Your task to perform on an android device: set the stopwatch Image 0: 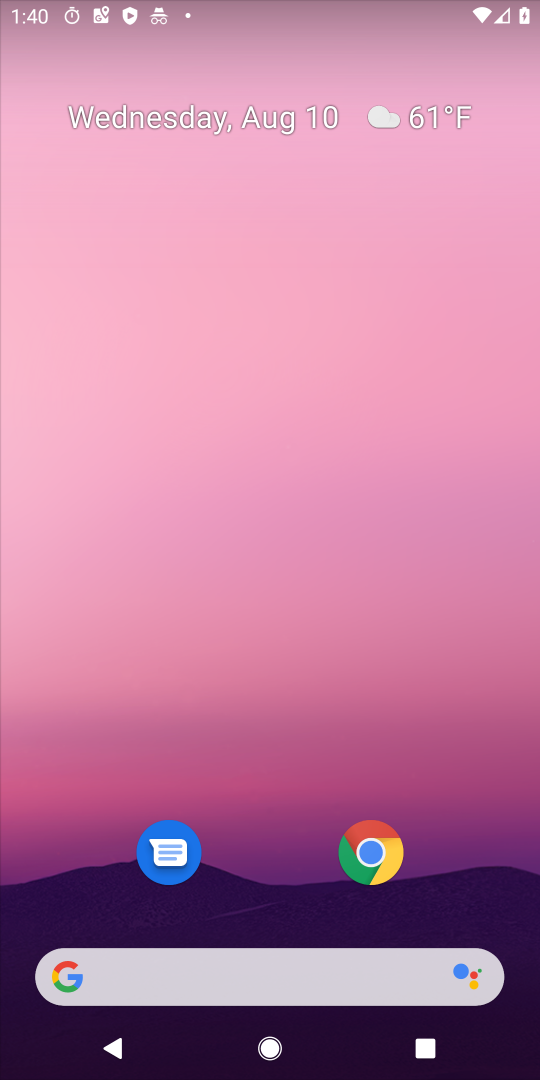
Step 0: drag from (258, 877) to (260, 0)
Your task to perform on an android device: set the stopwatch Image 1: 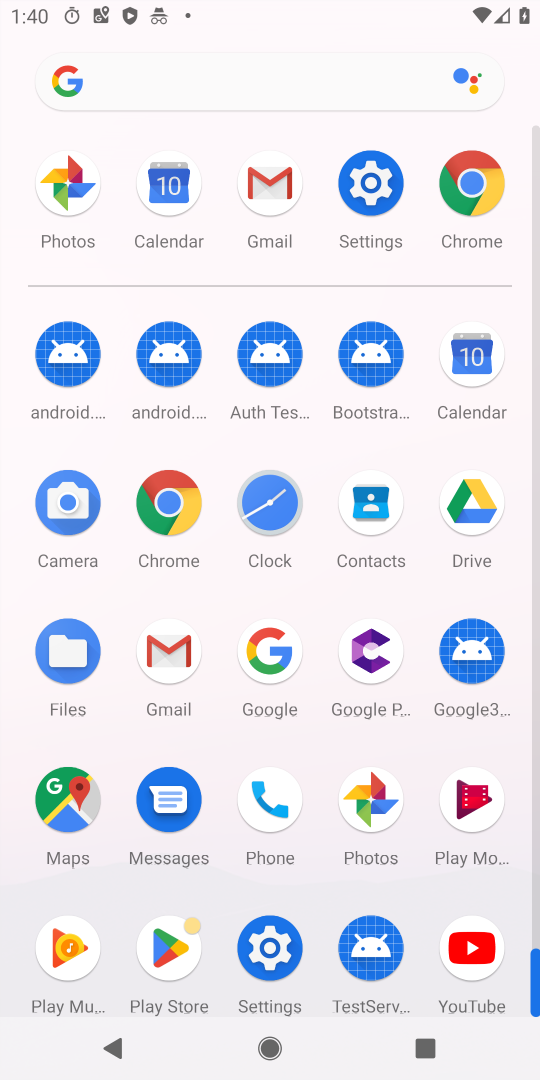
Step 1: click (282, 495)
Your task to perform on an android device: set the stopwatch Image 2: 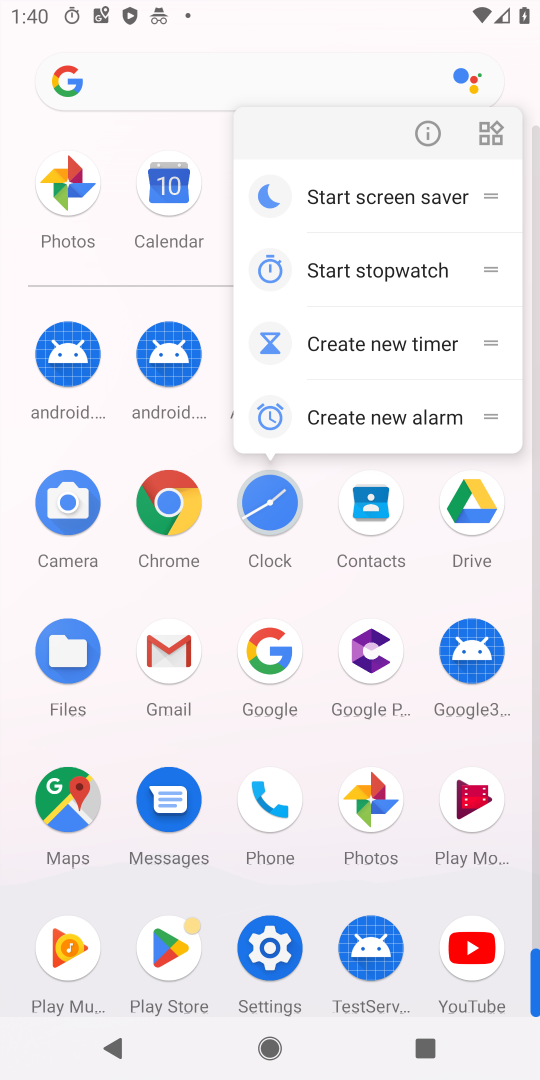
Step 2: click (273, 501)
Your task to perform on an android device: set the stopwatch Image 3: 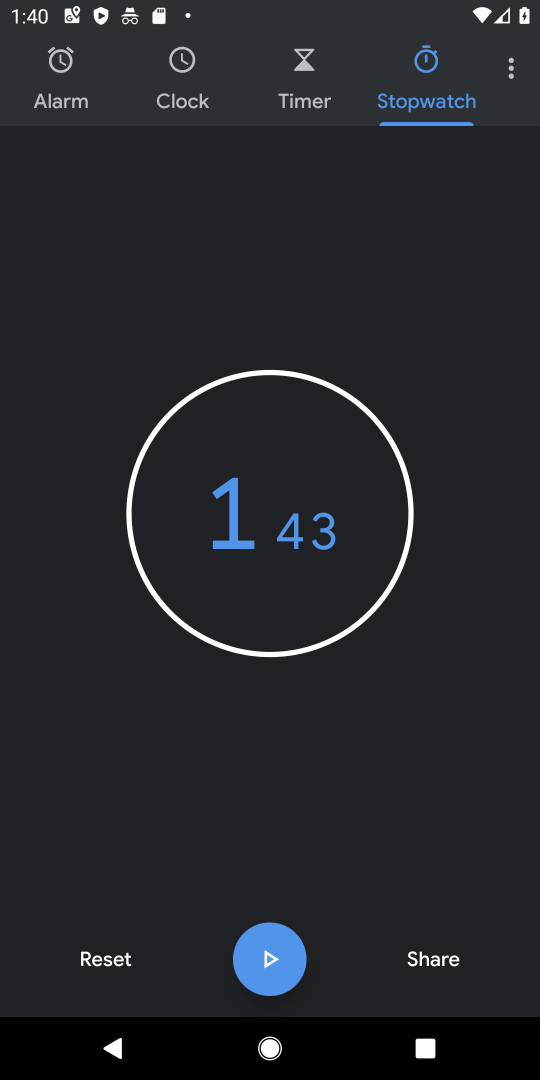
Step 3: task complete